Your task to perform on an android device: stop showing notifications on the lock screen Image 0: 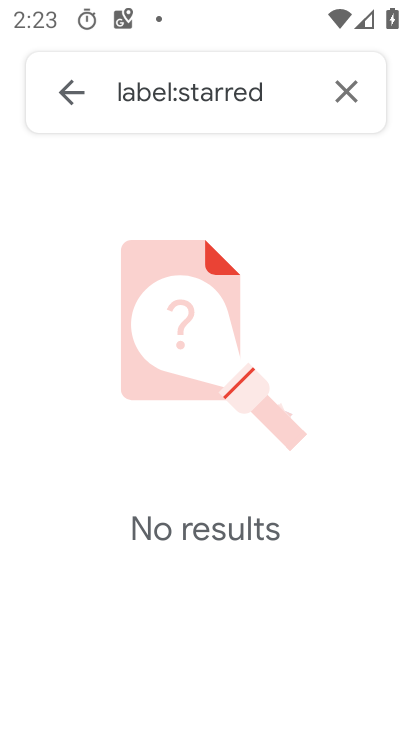
Step 0: press home button
Your task to perform on an android device: stop showing notifications on the lock screen Image 1: 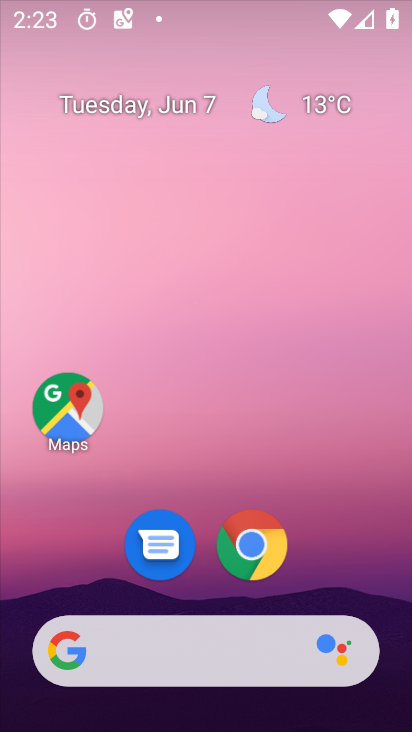
Step 1: drag from (343, 644) to (178, 36)
Your task to perform on an android device: stop showing notifications on the lock screen Image 2: 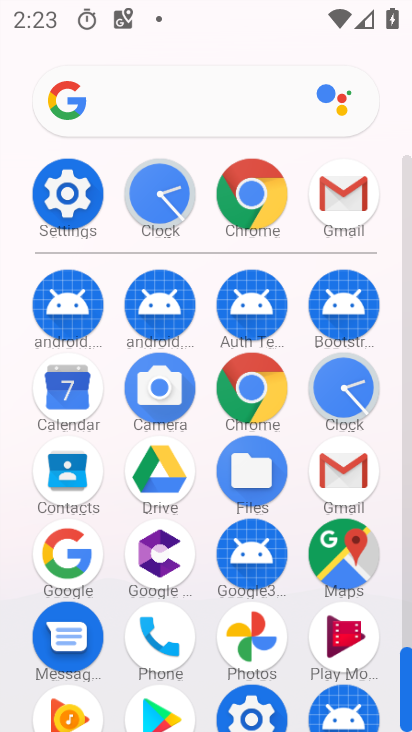
Step 2: click (63, 205)
Your task to perform on an android device: stop showing notifications on the lock screen Image 3: 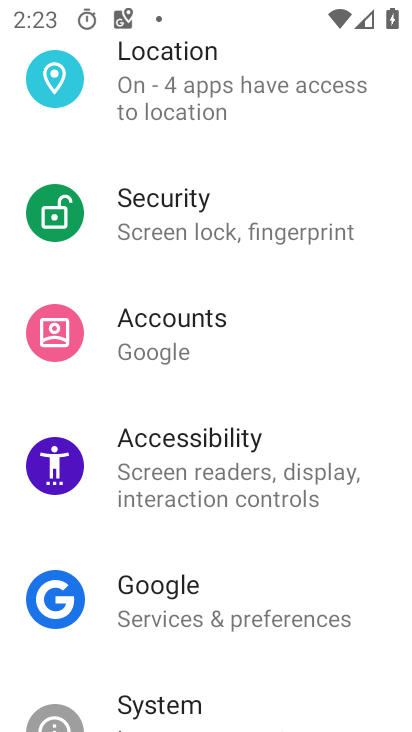
Step 3: drag from (249, 200) to (239, 699)
Your task to perform on an android device: stop showing notifications on the lock screen Image 4: 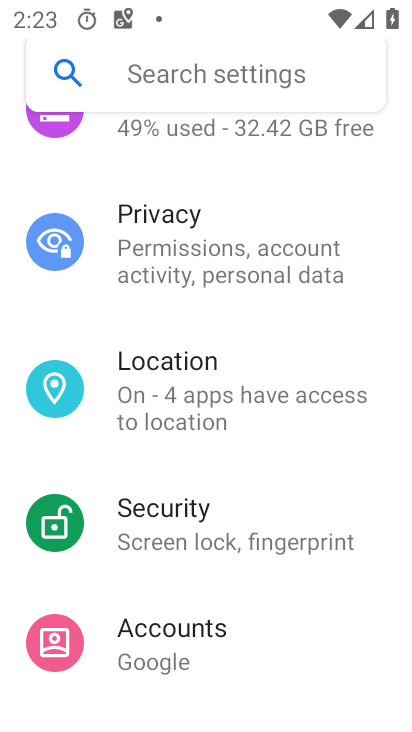
Step 4: drag from (296, 194) to (293, 634)
Your task to perform on an android device: stop showing notifications on the lock screen Image 5: 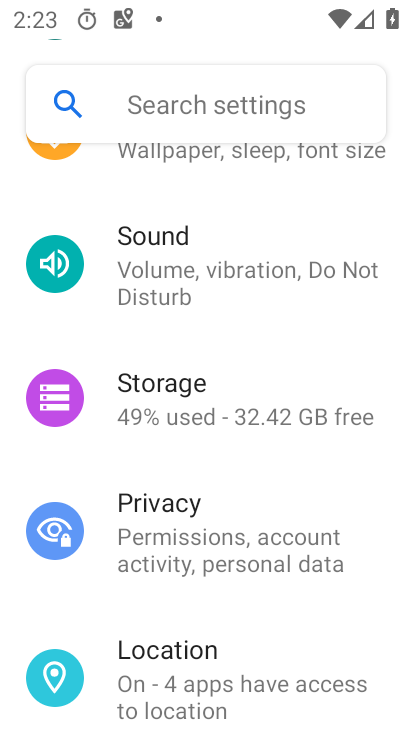
Step 5: drag from (238, 229) to (254, 636)
Your task to perform on an android device: stop showing notifications on the lock screen Image 6: 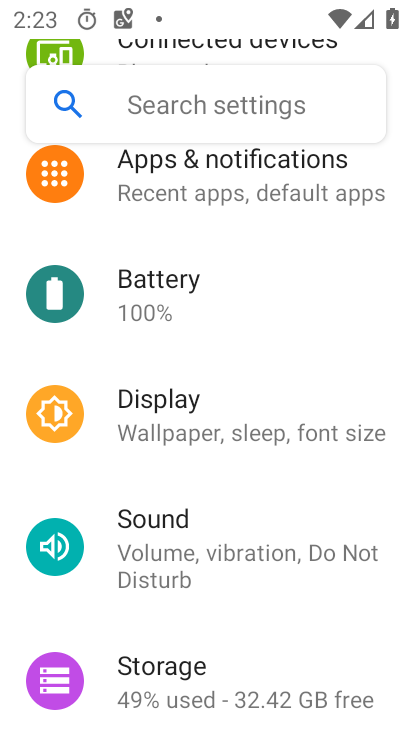
Step 6: drag from (257, 264) to (283, 683)
Your task to perform on an android device: stop showing notifications on the lock screen Image 7: 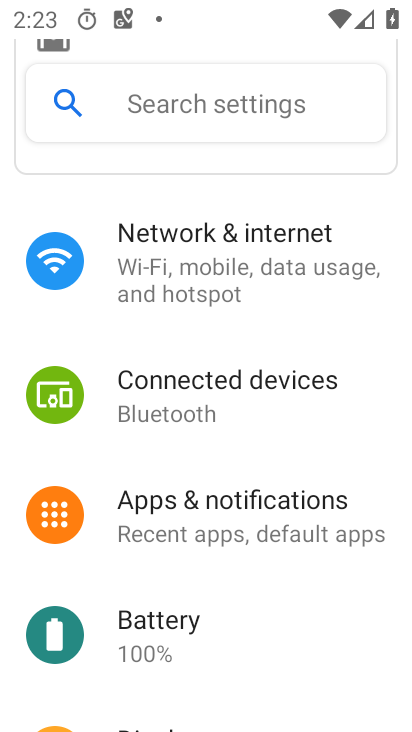
Step 7: drag from (243, 216) to (273, 653)
Your task to perform on an android device: stop showing notifications on the lock screen Image 8: 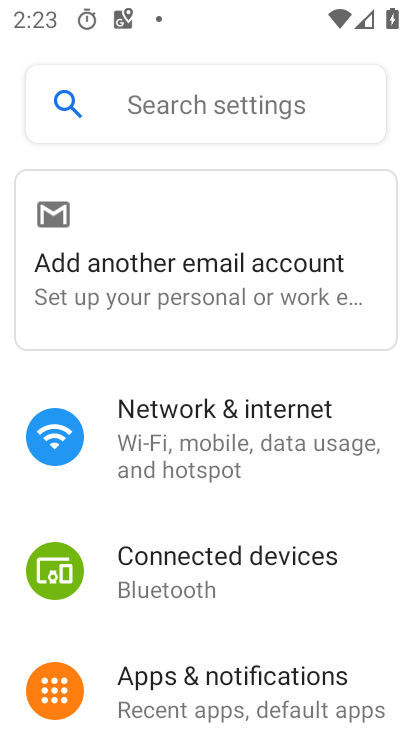
Step 8: click (238, 689)
Your task to perform on an android device: stop showing notifications on the lock screen Image 9: 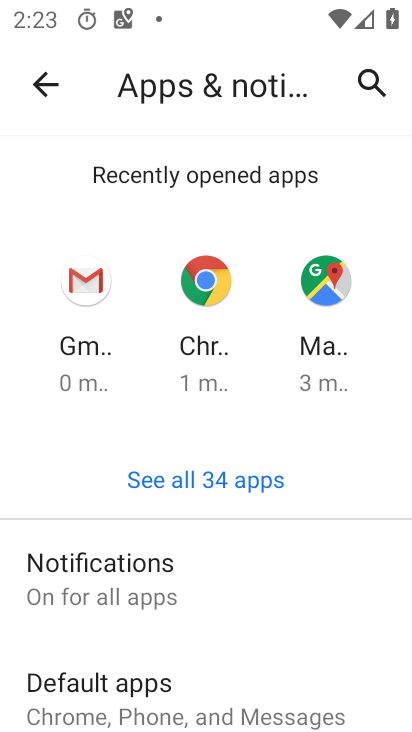
Step 9: click (212, 575)
Your task to perform on an android device: stop showing notifications on the lock screen Image 10: 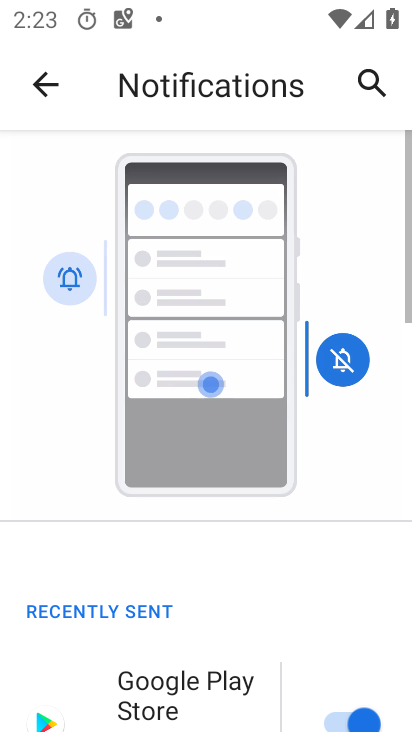
Step 10: drag from (251, 663) to (145, 1)
Your task to perform on an android device: stop showing notifications on the lock screen Image 11: 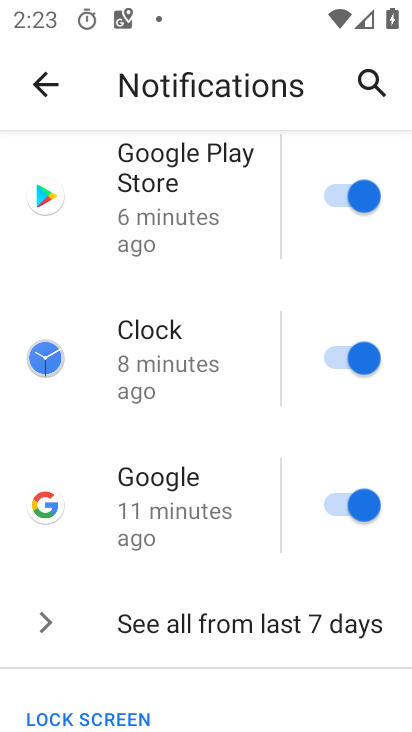
Step 11: drag from (183, 562) to (205, 112)
Your task to perform on an android device: stop showing notifications on the lock screen Image 12: 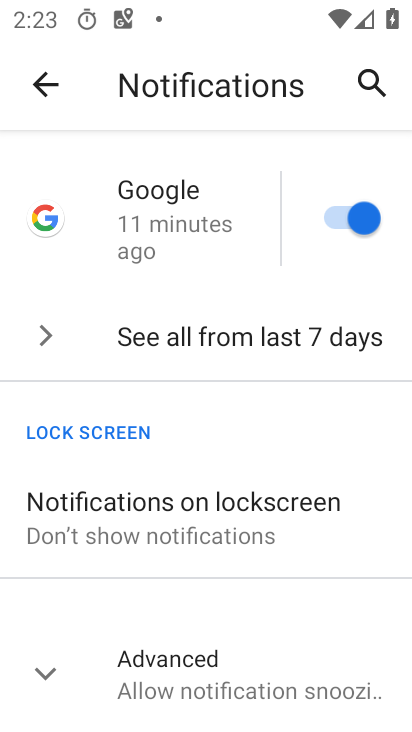
Step 12: click (182, 495)
Your task to perform on an android device: stop showing notifications on the lock screen Image 13: 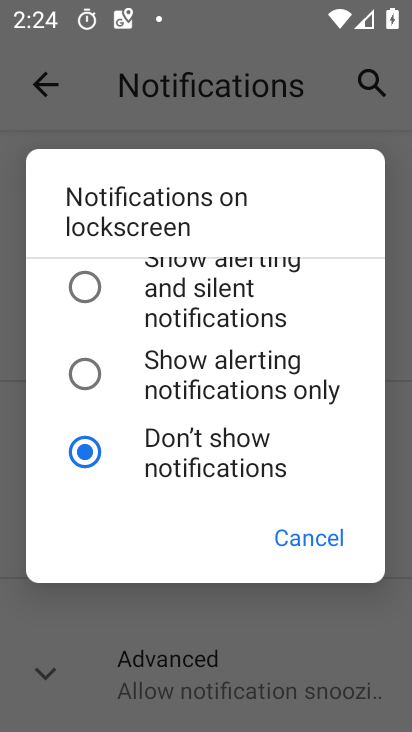
Step 13: task complete